Your task to perform on an android device: Open Google Chrome and open the bookmarks view Image 0: 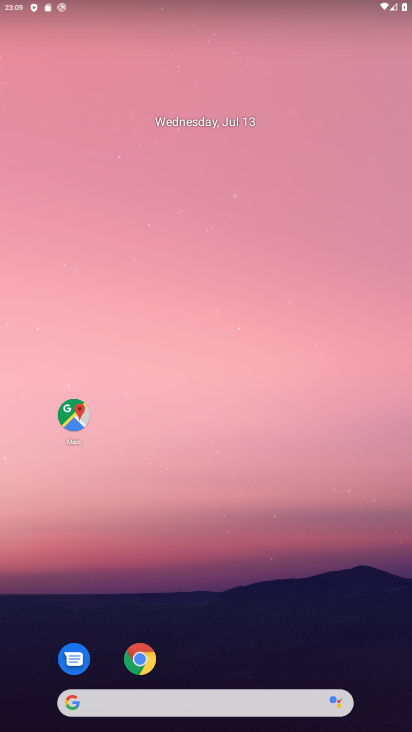
Step 0: click (139, 659)
Your task to perform on an android device: Open Google Chrome and open the bookmarks view Image 1: 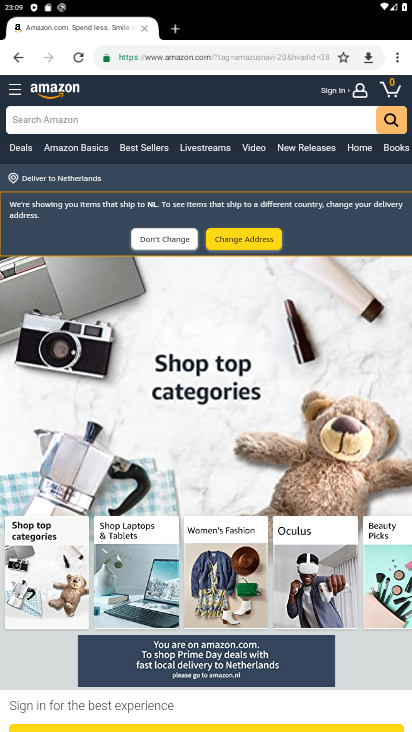
Step 1: click (396, 60)
Your task to perform on an android device: Open Google Chrome and open the bookmarks view Image 2: 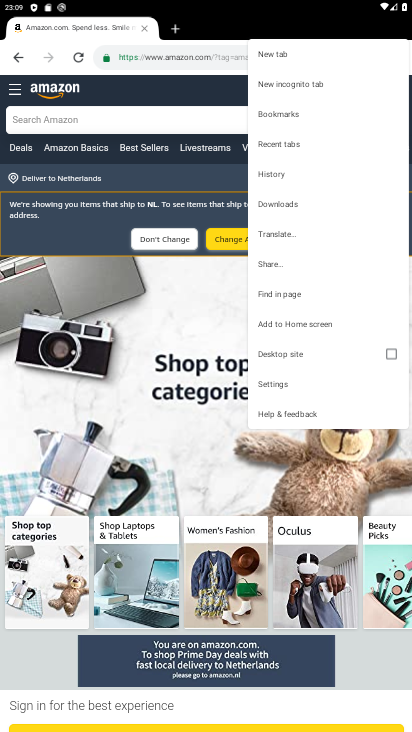
Step 2: click (269, 113)
Your task to perform on an android device: Open Google Chrome and open the bookmarks view Image 3: 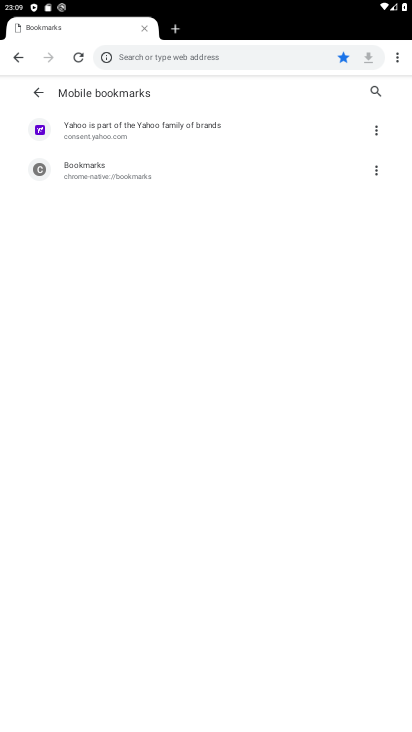
Step 3: task complete